Your task to perform on an android device: change the upload size in google photos Image 0: 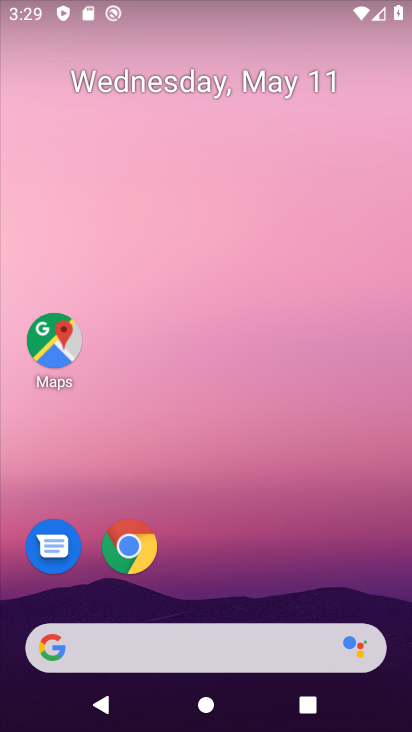
Step 0: click (314, 321)
Your task to perform on an android device: change the upload size in google photos Image 1: 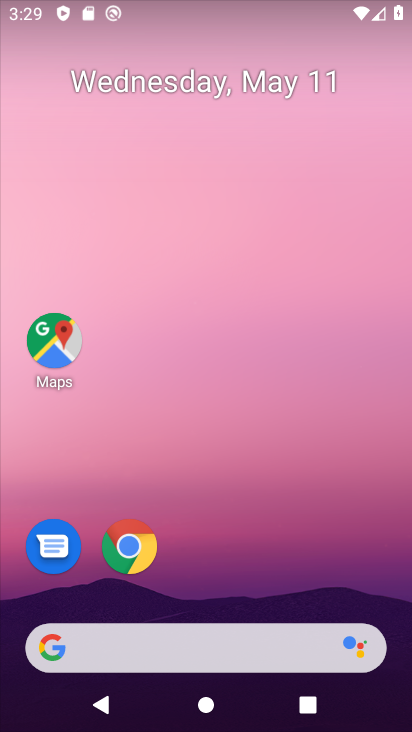
Step 1: drag from (170, 615) to (333, 196)
Your task to perform on an android device: change the upload size in google photos Image 2: 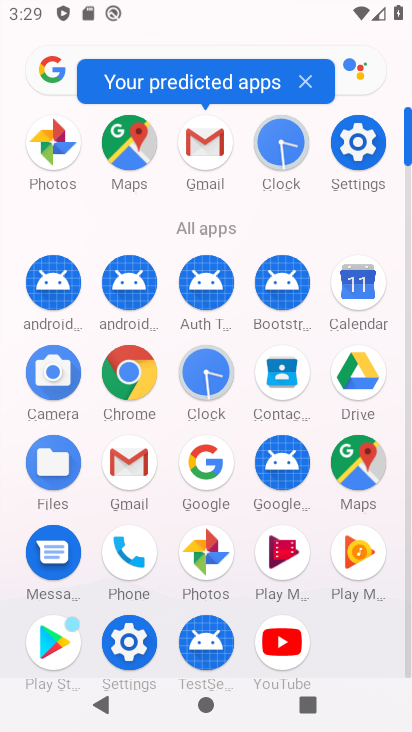
Step 2: click (216, 553)
Your task to perform on an android device: change the upload size in google photos Image 3: 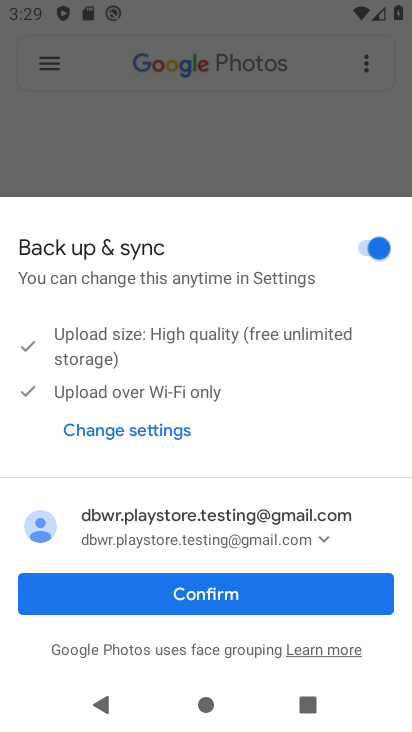
Step 3: click (256, 603)
Your task to perform on an android device: change the upload size in google photos Image 4: 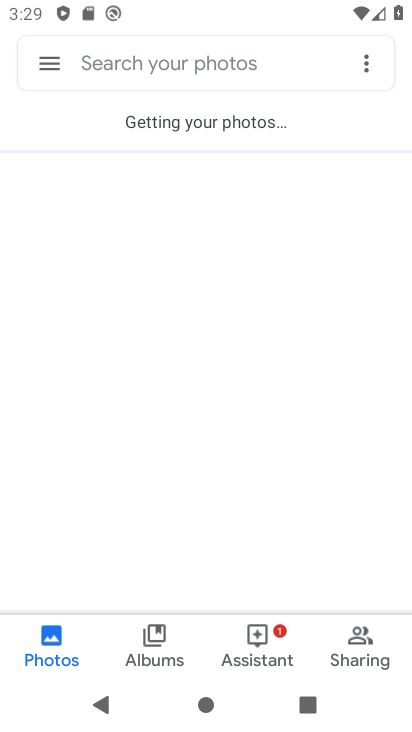
Step 4: click (36, 65)
Your task to perform on an android device: change the upload size in google photos Image 5: 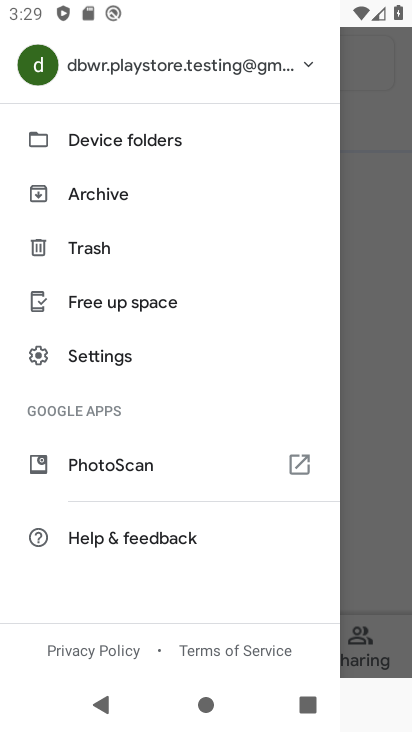
Step 5: click (198, 367)
Your task to perform on an android device: change the upload size in google photos Image 6: 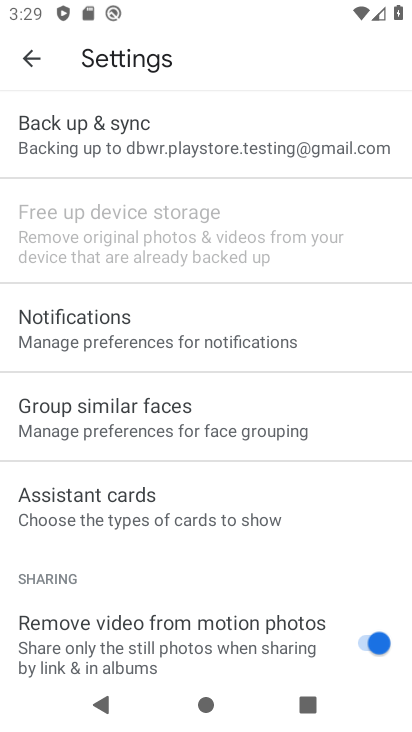
Step 6: click (164, 159)
Your task to perform on an android device: change the upload size in google photos Image 7: 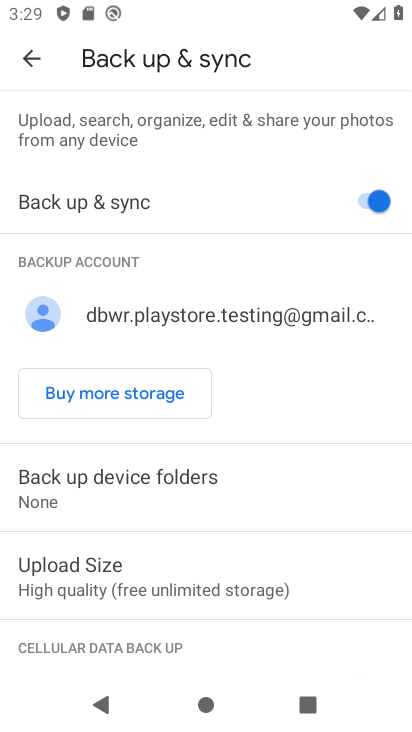
Step 7: click (167, 591)
Your task to perform on an android device: change the upload size in google photos Image 8: 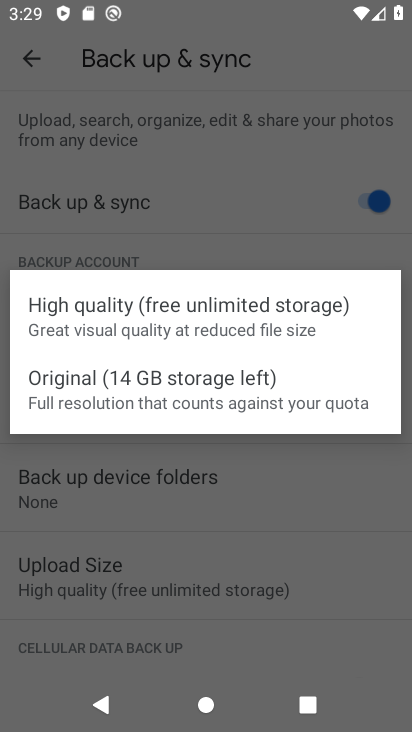
Step 8: click (164, 424)
Your task to perform on an android device: change the upload size in google photos Image 9: 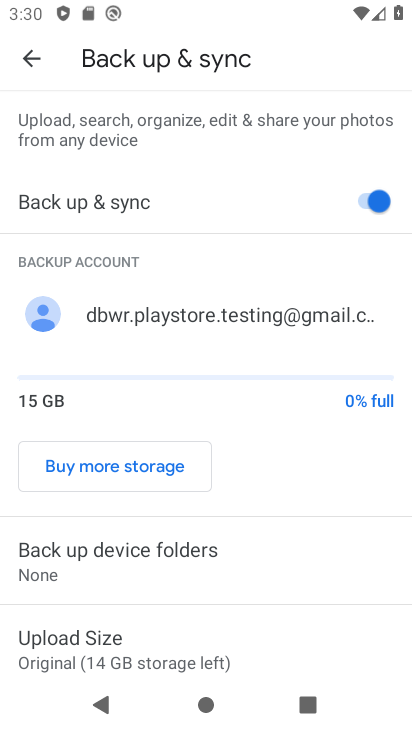
Step 9: task complete